Your task to perform on an android device: Open CNN.com Image 0: 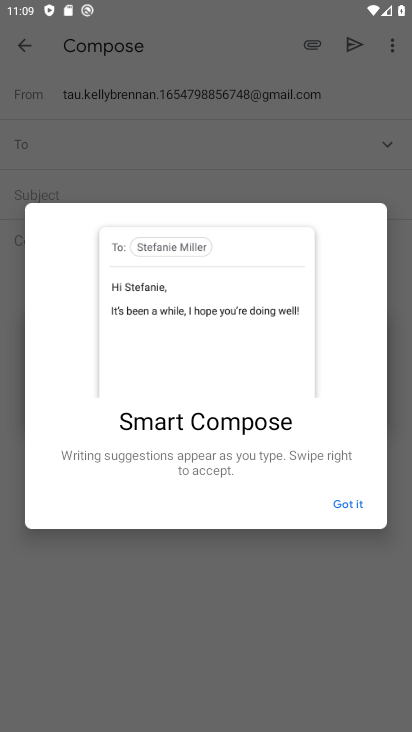
Step 0: press home button
Your task to perform on an android device: Open CNN.com Image 1: 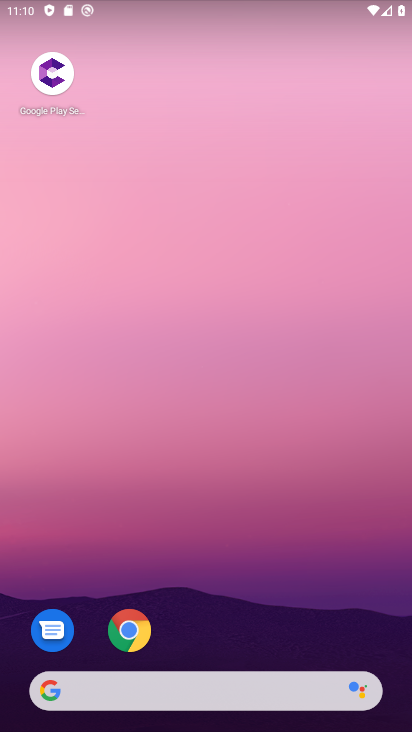
Step 1: drag from (341, 441) to (327, 5)
Your task to perform on an android device: Open CNN.com Image 2: 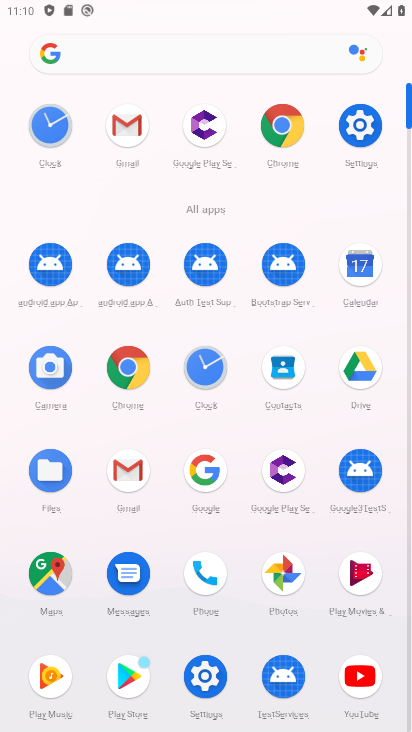
Step 2: click (274, 129)
Your task to perform on an android device: Open CNN.com Image 3: 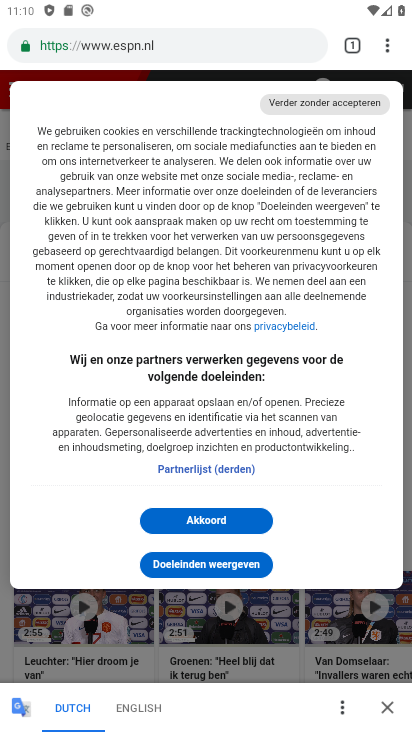
Step 3: click (150, 47)
Your task to perform on an android device: Open CNN.com Image 4: 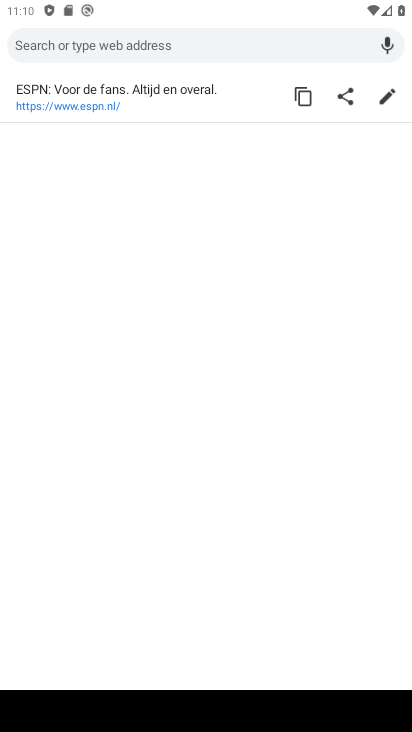
Step 4: type "CNN.com"
Your task to perform on an android device: Open CNN.com Image 5: 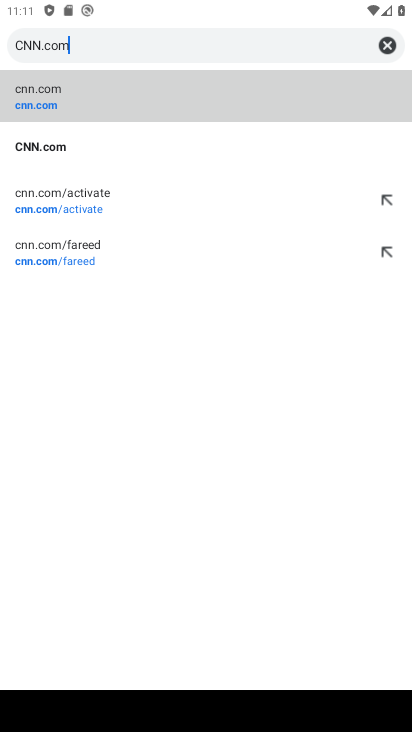
Step 5: click (57, 149)
Your task to perform on an android device: Open CNN.com Image 6: 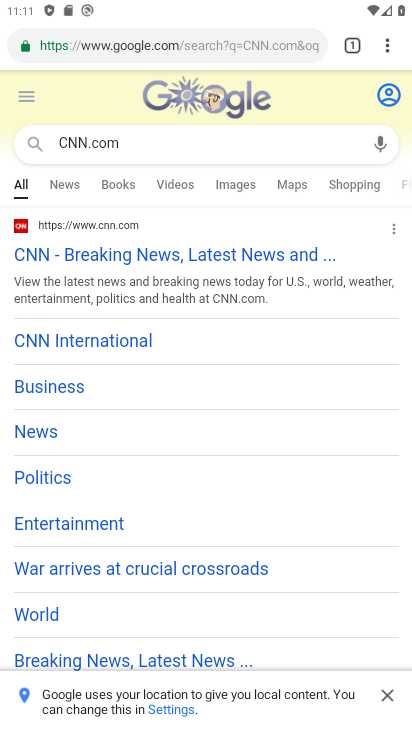
Step 6: task complete